Your task to perform on an android device: Open maps Image 0: 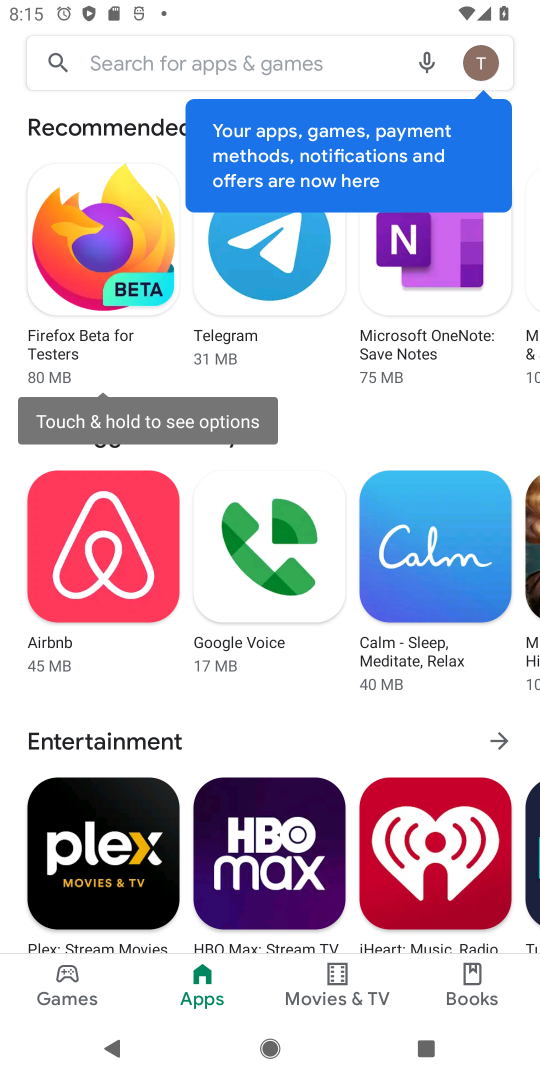
Step 0: press back button
Your task to perform on an android device: Open maps Image 1: 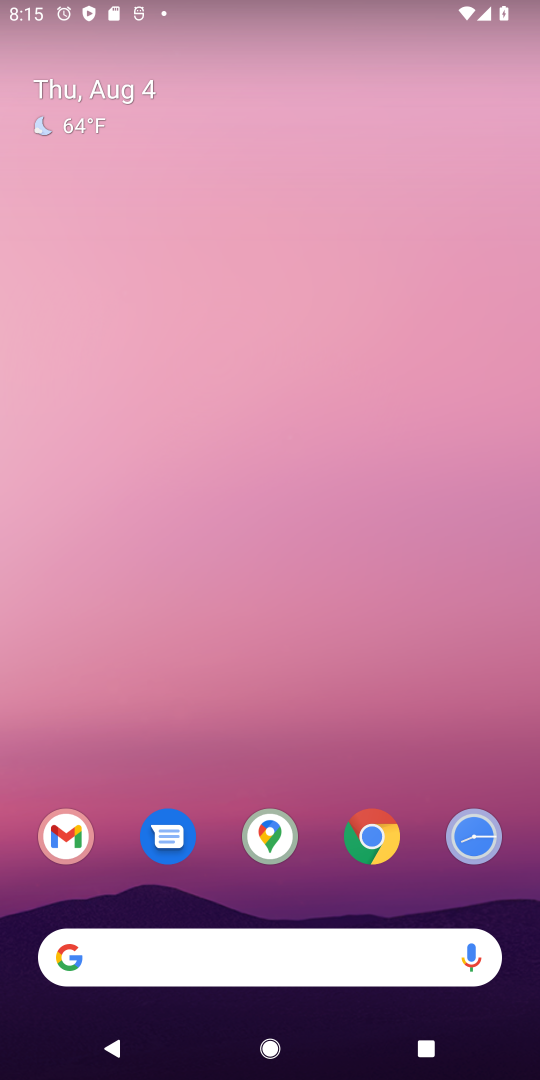
Step 1: click (267, 844)
Your task to perform on an android device: Open maps Image 2: 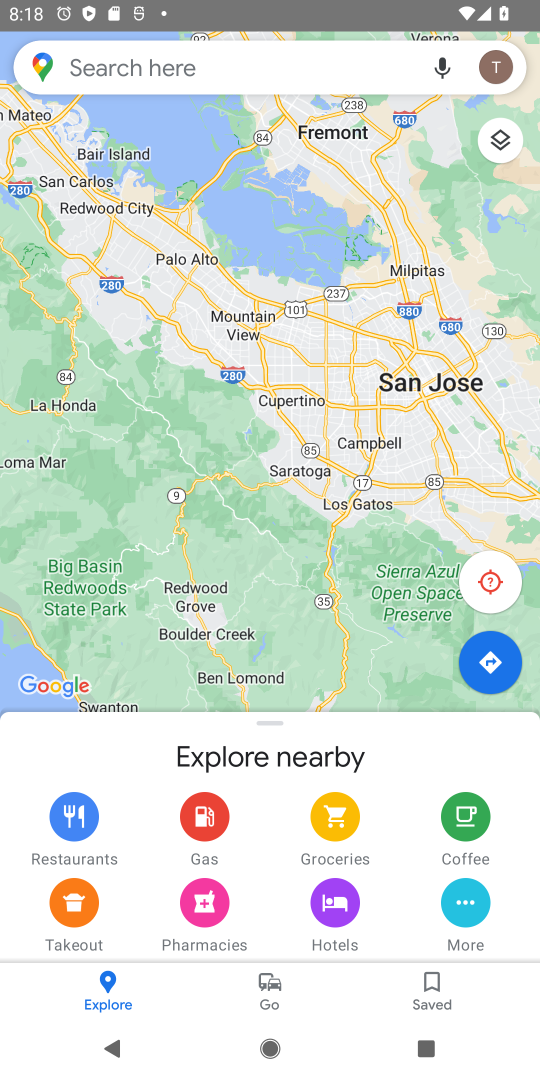
Step 2: task complete